Your task to perform on an android device: turn smart compose on in the gmail app Image 0: 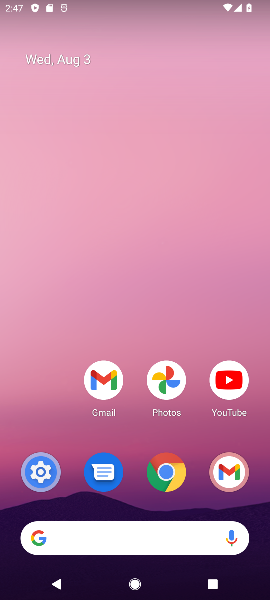
Step 0: drag from (190, 499) to (45, 61)
Your task to perform on an android device: turn smart compose on in the gmail app Image 1: 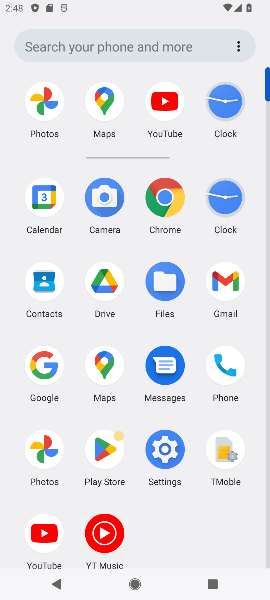
Step 1: click (237, 279)
Your task to perform on an android device: turn smart compose on in the gmail app Image 2: 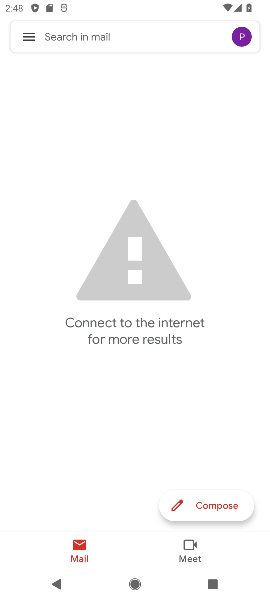
Step 2: click (28, 34)
Your task to perform on an android device: turn smart compose on in the gmail app Image 3: 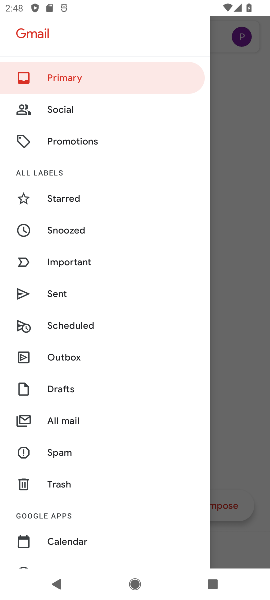
Step 3: drag from (67, 476) to (94, 79)
Your task to perform on an android device: turn smart compose on in the gmail app Image 4: 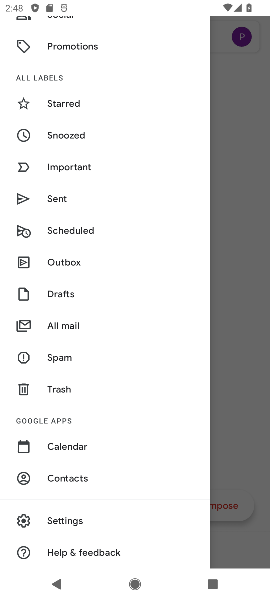
Step 4: click (65, 515)
Your task to perform on an android device: turn smart compose on in the gmail app Image 5: 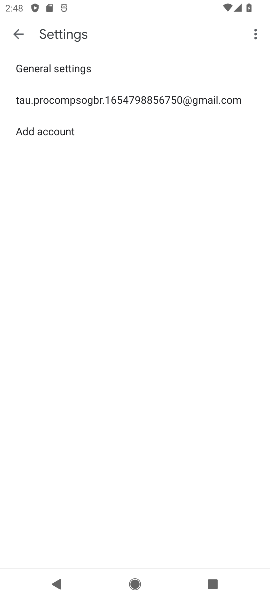
Step 5: click (118, 94)
Your task to perform on an android device: turn smart compose on in the gmail app Image 6: 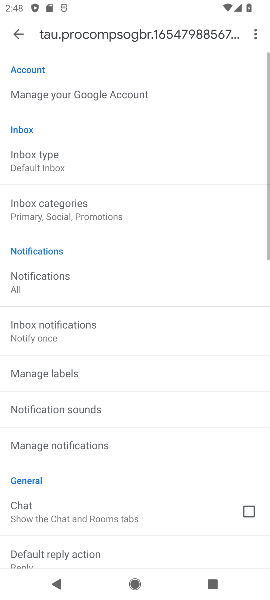
Step 6: task complete